Your task to perform on an android device: Go to notification settings Image 0: 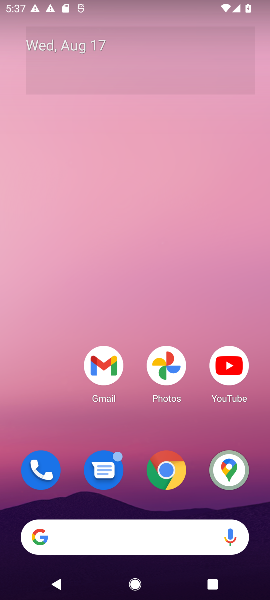
Step 0: drag from (148, 512) to (31, 14)
Your task to perform on an android device: Go to notification settings Image 1: 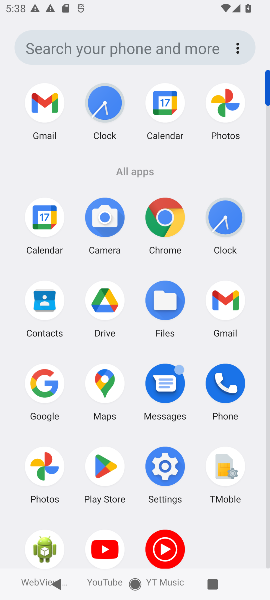
Step 1: click (166, 470)
Your task to perform on an android device: Go to notification settings Image 2: 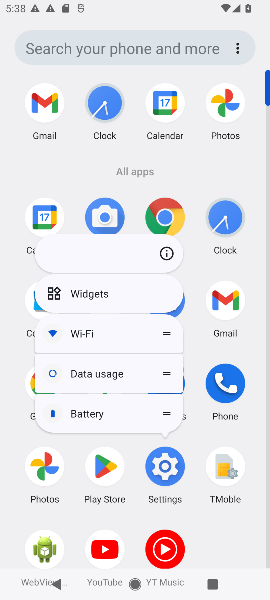
Step 2: click (165, 468)
Your task to perform on an android device: Go to notification settings Image 3: 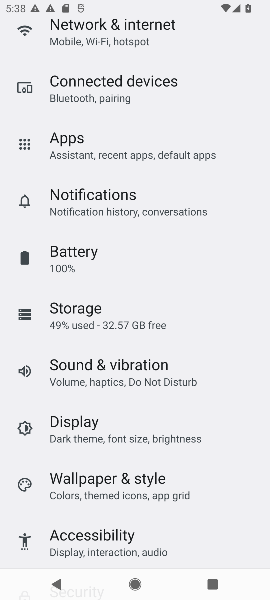
Step 3: click (124, 201)
Your task to perform on an android device: Go to notification settings Image 4: 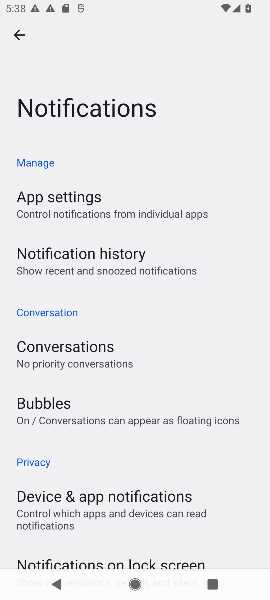
Step 4: task complete